Your task to perform on an android device: Play the last video I watched on Youtube Image 0: 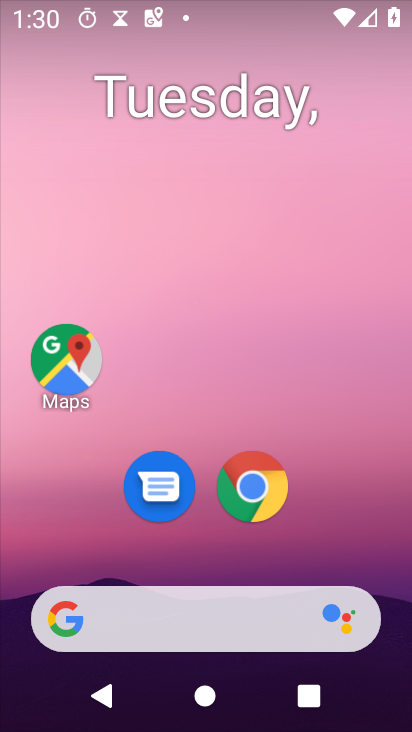
Step 0: drag from (358, 568) to (277, 161)
Your task to perform on an android device: Play the last video I watched on Youtube Image 1: 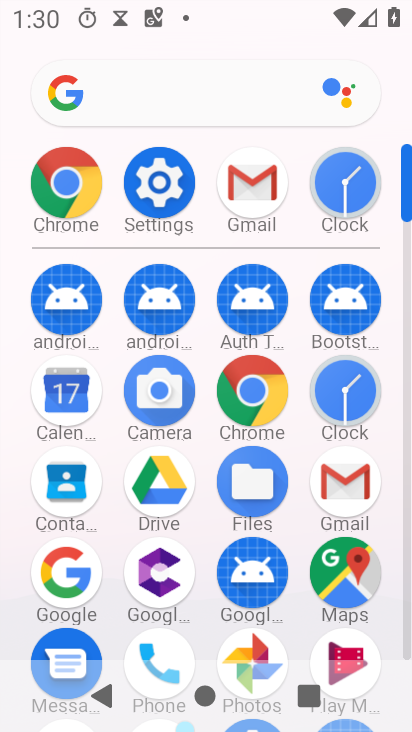
Step 1: click (407, 654)
Your task to perform on an android device: Play the last video I watched on Youtube Image 2: 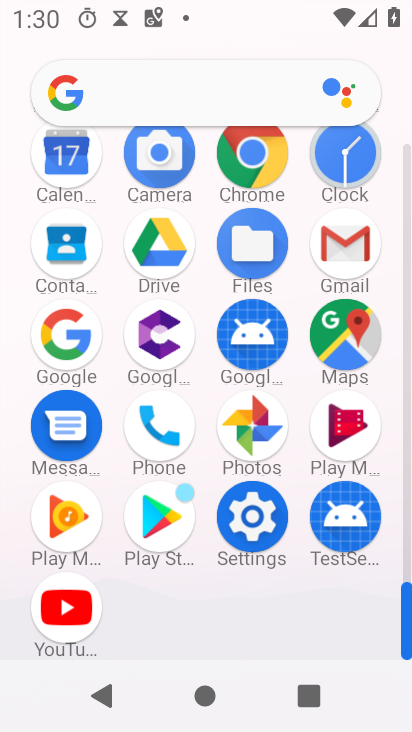
Step 2: click (82, 617)
Your task to perform on an android device: Play the last video I watched on Youtube Image 3: 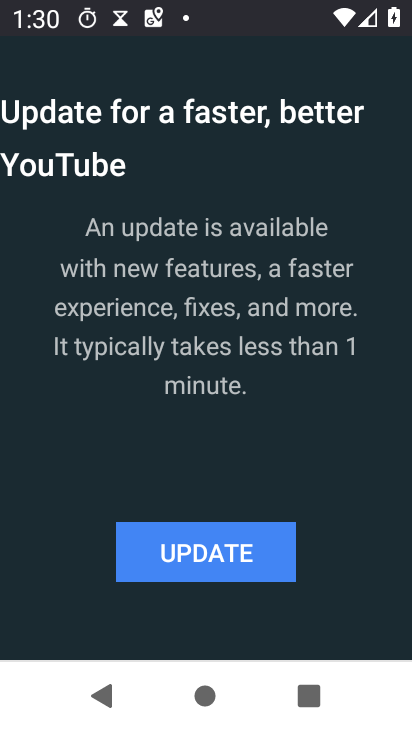
Step 3: click (184, 569)
Your task to perform on an android device: Play the last video I watched on Youtube Image 4: 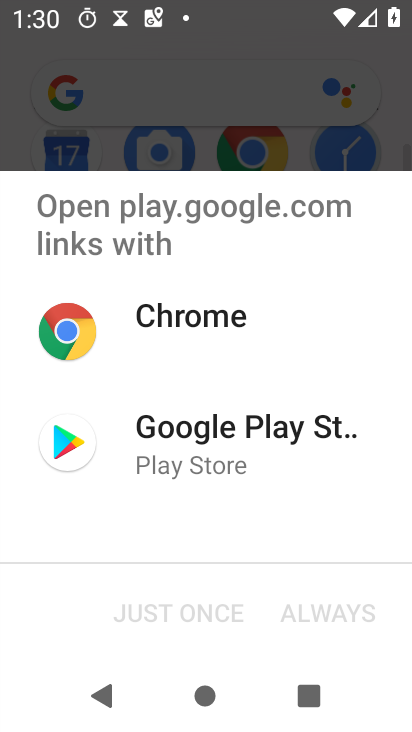
Step 4: click (207, 462)
Your task to perform on an android device: Play the last video I watched on Youtube Image 5: 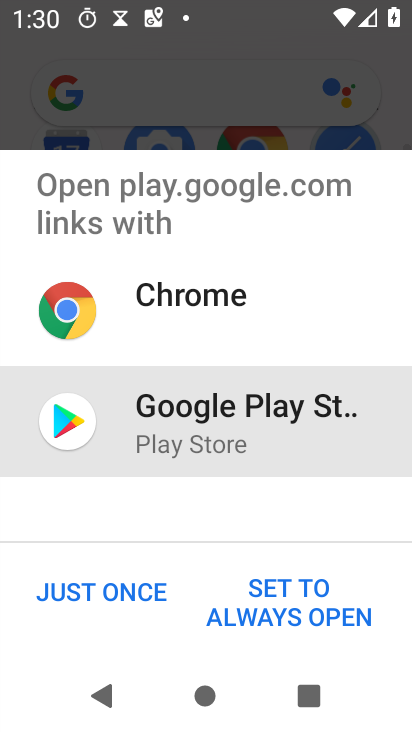
Step 5: click (114, 597)
Your task to perform on an android device: Play the last video I watched on Youtube Image 6: 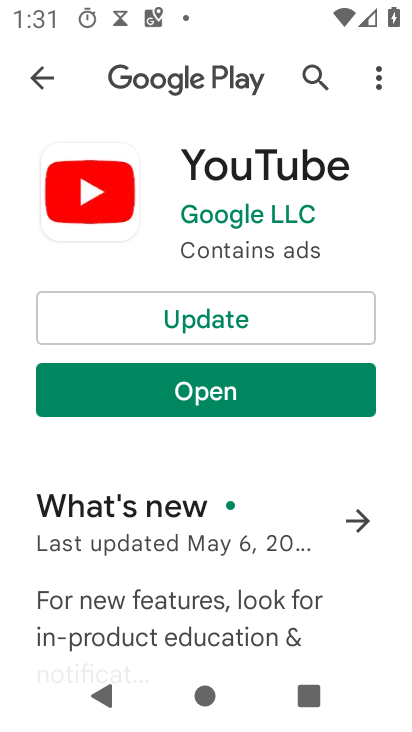
Step 6: click (198, 326)
Your task to perform on an android device: Play the last video I watched on Youtube Image 7: 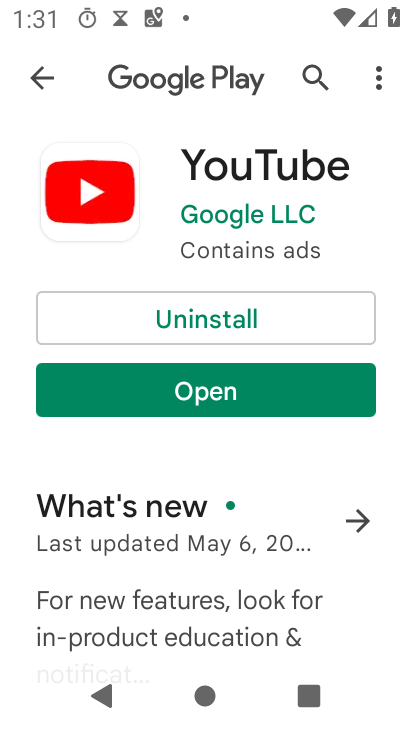
Step 7: click (315, 410)
Your task to perform on an android device: Play the last video I watched on Youtube Image 8: 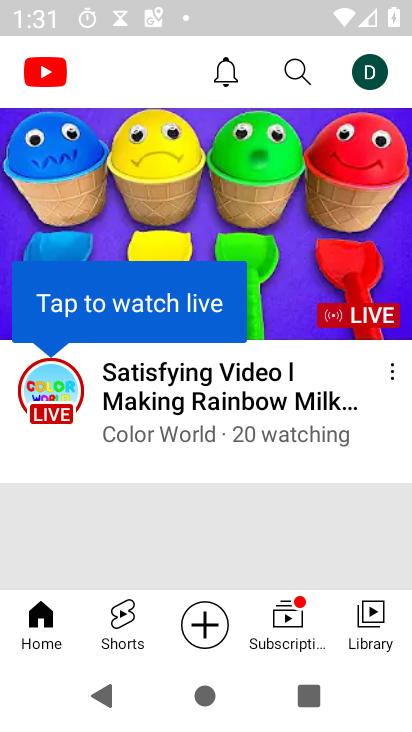
Step 8: click (376, 627)
Your task to perform on an android device: Play the last video I watched on Youtube Image 9: 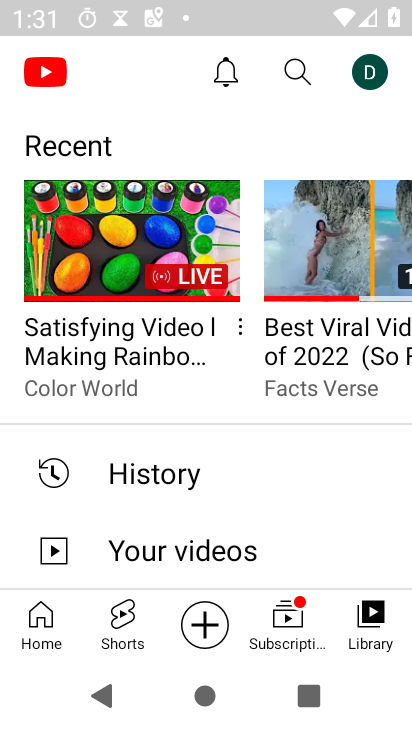
Step 9: click (70, 268)
Your task to perform on an android device: Play the last video I watched on Youtube Image 10: 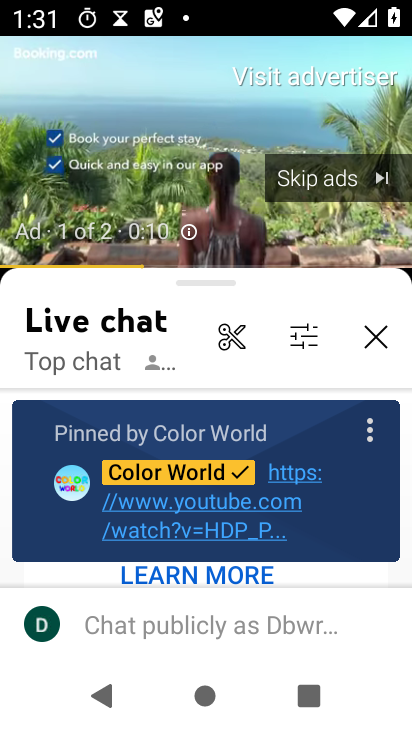
Step 10: task complete